Your task to perform on an android device: turn on airplane mode Image 0: 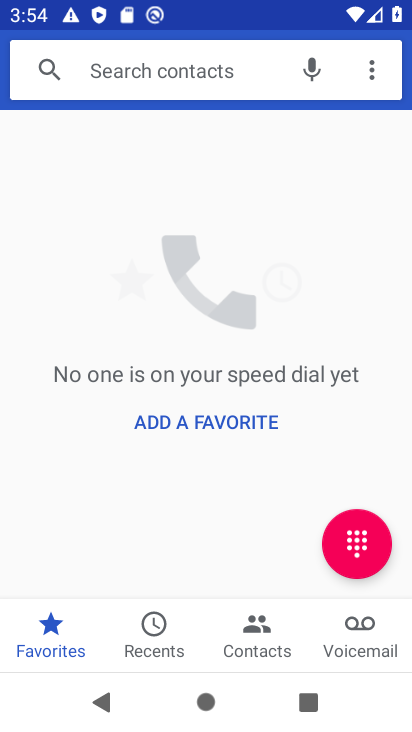
Step 0: drag from (232, 1) to (184, 620)
Your task to perform on an android device: turn on airplane mode Image 1: 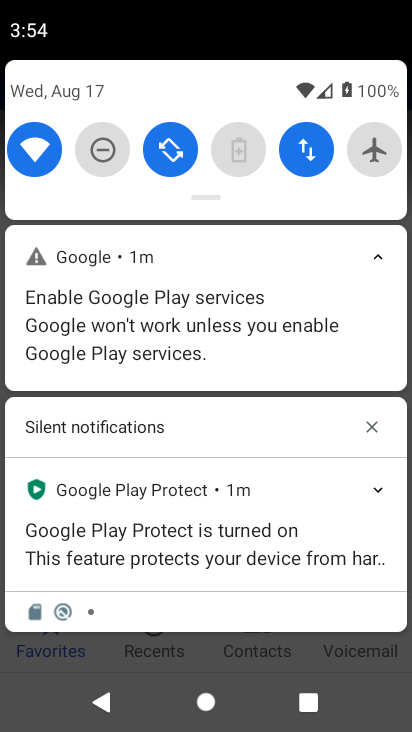
Step 1: click (369, 141)
Your task to perform on an android device: turn on airplane mode Image 2: 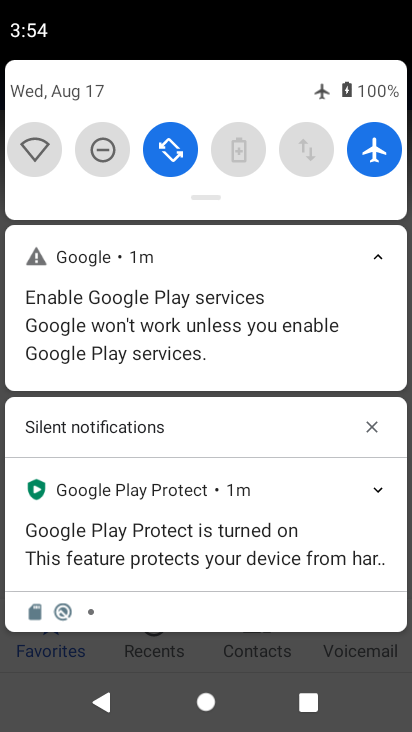
Step 2: task complete